Your task to perform on an android device: Show me recent news Image 0: 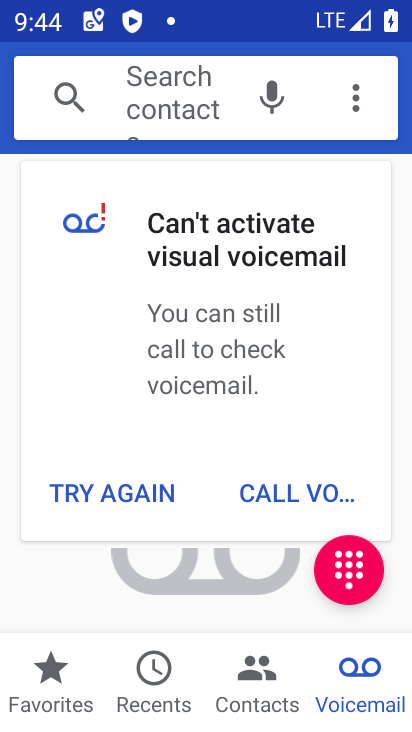
Step 0: press home button
Your task to perform on an android device: Show me recent news Image 1: 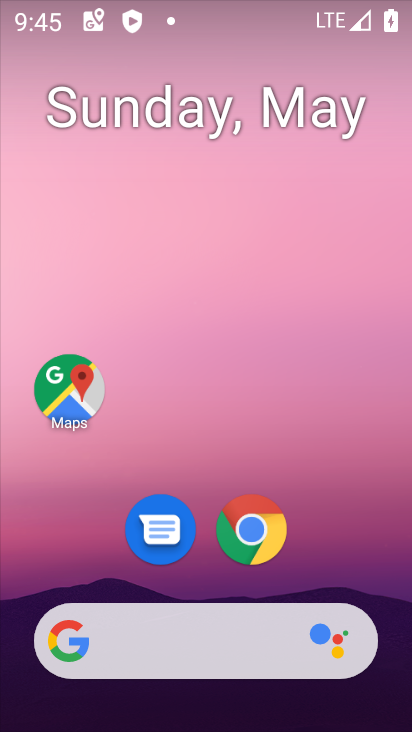
Step 1: click (186, 639)
Your task to perform on an android device: Show me recent news Image 2: 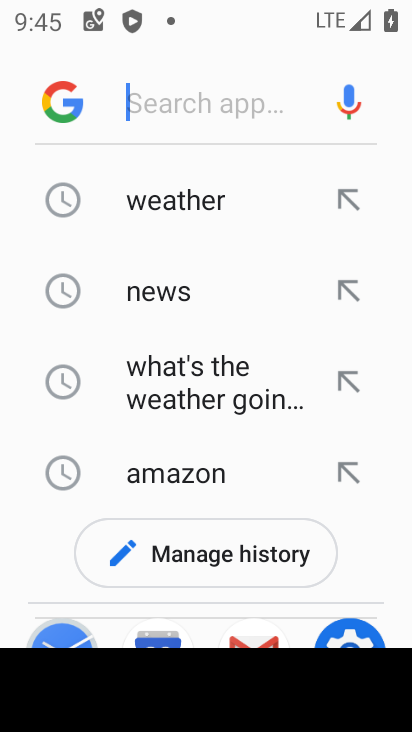
Step 2: click (172, 290)
Your task to perform on an android device: Show me recent news Image 3: 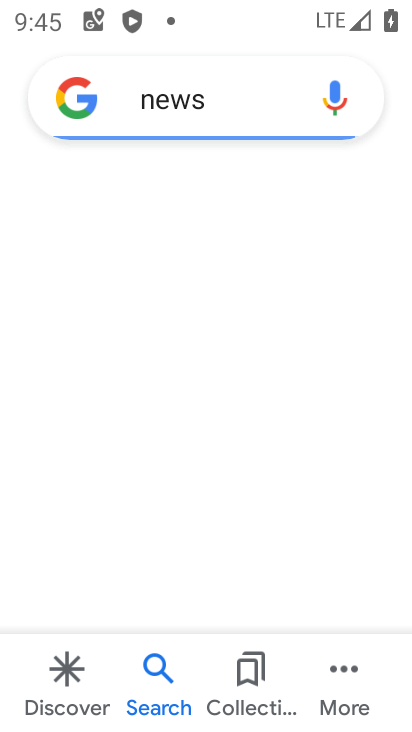
Step 3: task complete